Your task to perform on an android device: Go to notification settings Image 0: 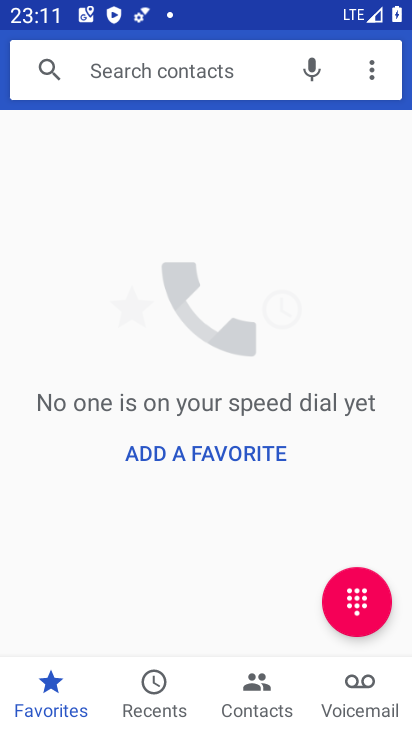
Step 0: press back button
Your task to perform on an android device: Go to notification settings Image 1: 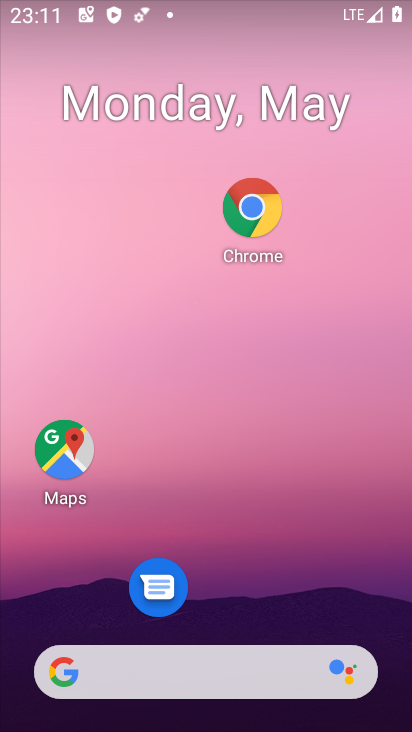
Step 1: drag from (257, 720) to (255, 0)
Your task to perform on an android device: Go to notification settings Image 2: 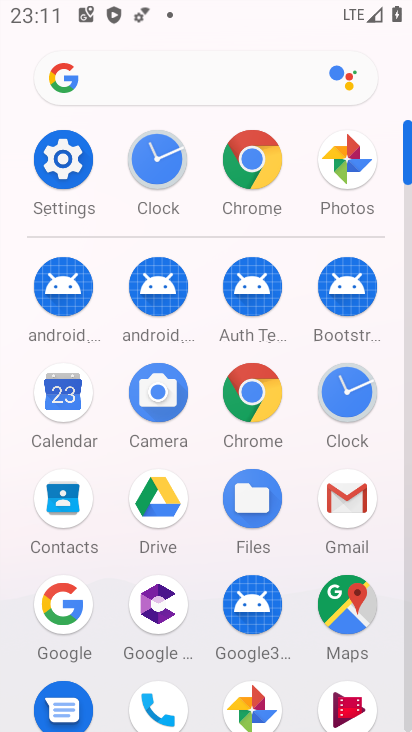
Step 2: click (71, 178)
Your task to perform on an android device: Go to notification settings Image 3: 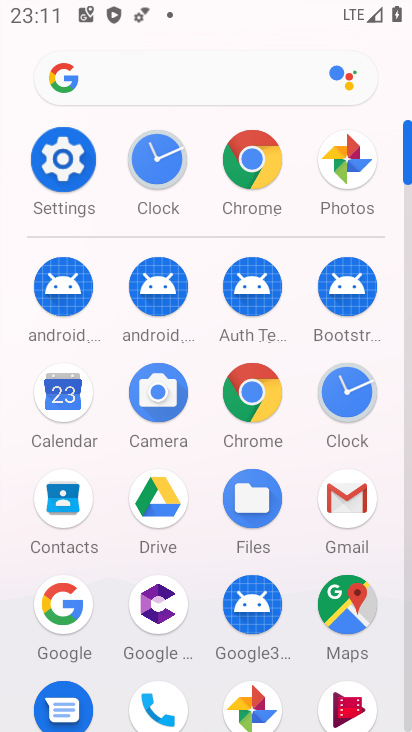
Step 3: click (75, 170)
Your task to perform on an android device: Go to notification settings Image 4: 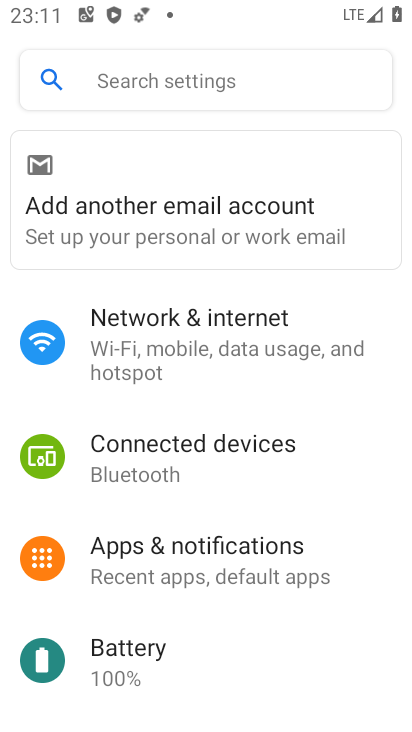
Step 4: click (196, 562)
Your task to perform on an android device: Go to notification settings Image 5: 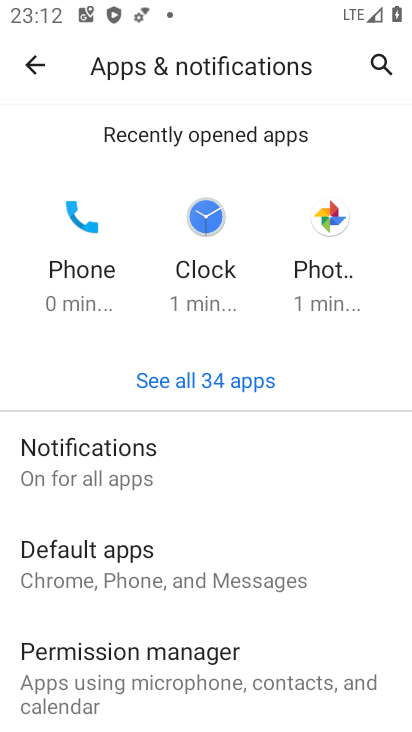
Step 5: click (79, 450)
Your task to perform on an android device: Go to notification settings Image 6: 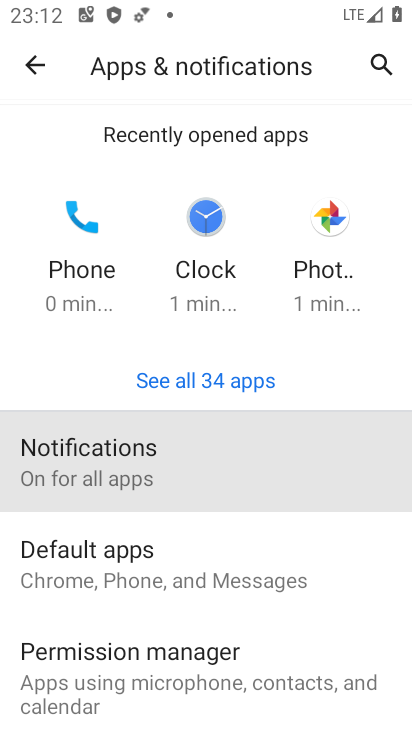
Step 6: click (79, 450)
Your task to perform on an android device: Go to notification settings Image 7: 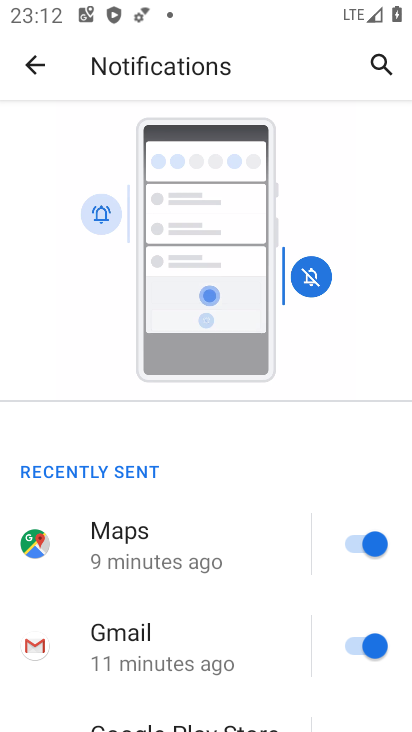
Step 7: drag from (223, 562) to (227, 199)
Your task to perform on an android device: Go to notification settings Image 8: 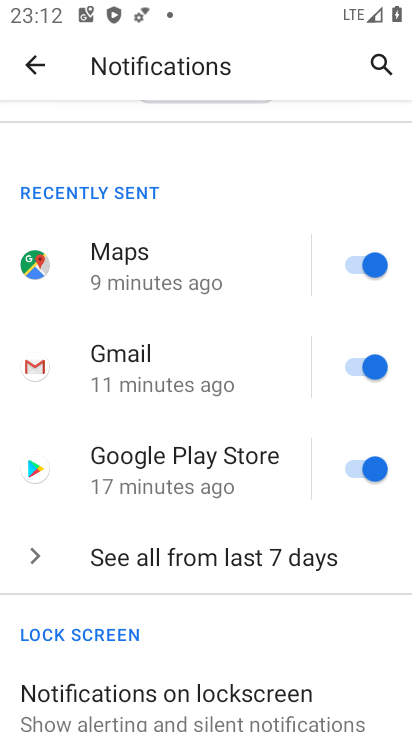
Step 8: drag from (307, 509) to (307, 158)
Your task to perform on an android device: Go to notification settings Image 9: 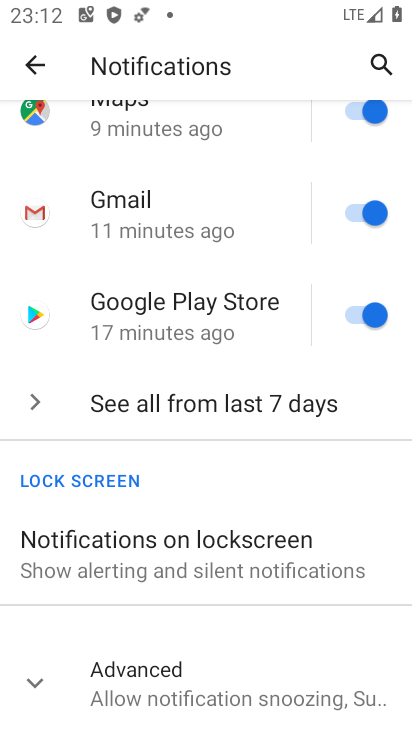
Step 9: click (136, 680)
Your task to perform on an android device: Go to notification settings Image 10: 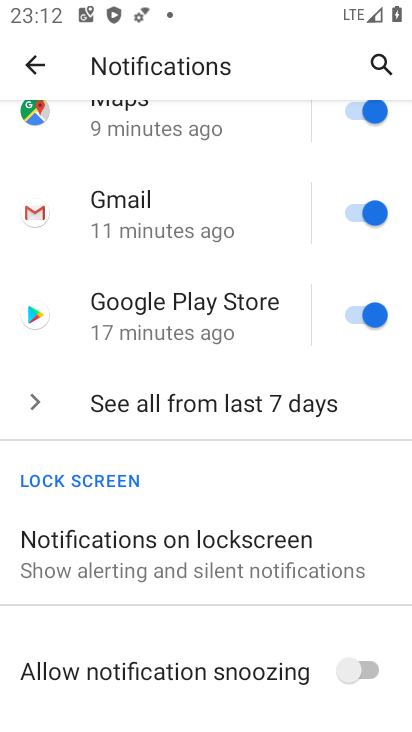
Step 10: task complete